Your task to perform on an android device: Toggle the flashlight Image 0: 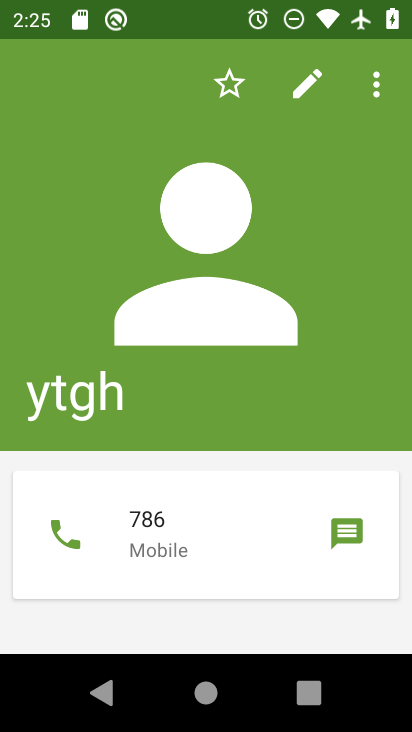
Step 0: press home button
Your task to perform on an android device: Toggle the flashlight Image 1: 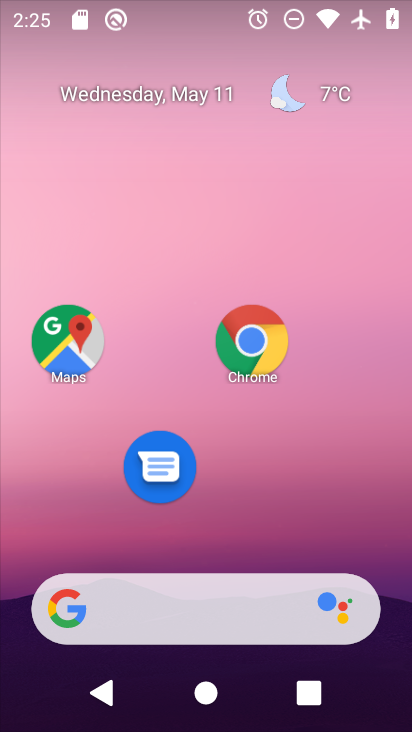
Step 1: task complete